Your task to perform on an android device: What's the weather going to be tomorrow? Image 0: 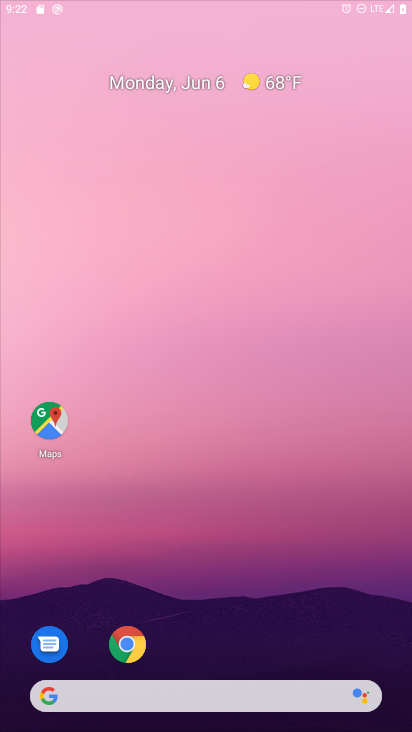
Step 0: press home button
Your task to perform on an android device: What's the weather going to be tomorrow? Image 1: 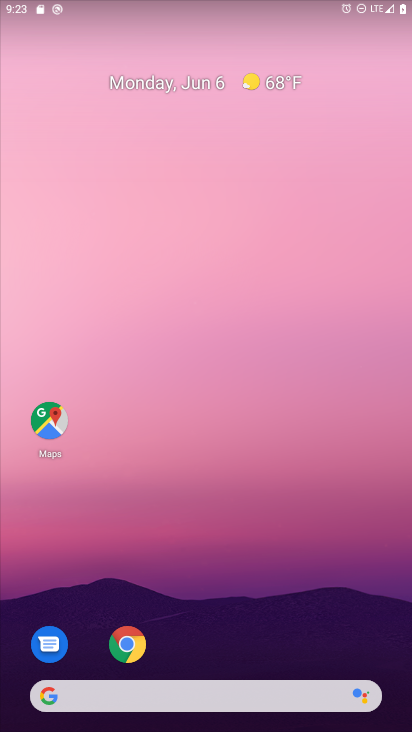
Step 1: click (234, 704)
Your task to perform on an android device: What's the weather going to be tomorrow? Image 2: 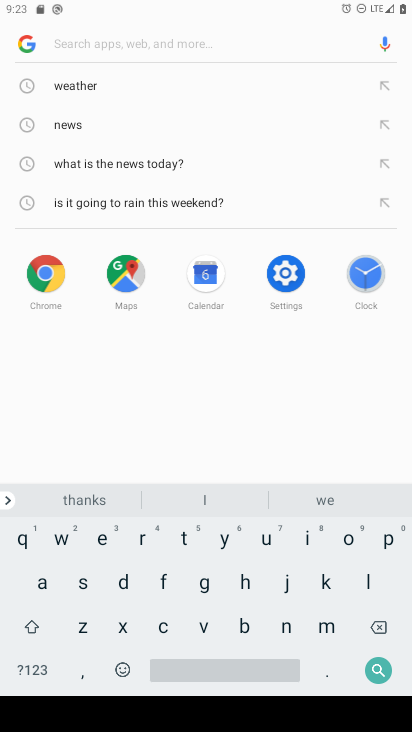
Step 2: click (87, 113)
Your task to perform on an android device: What's the weather going to be tomorrow? Image 3: 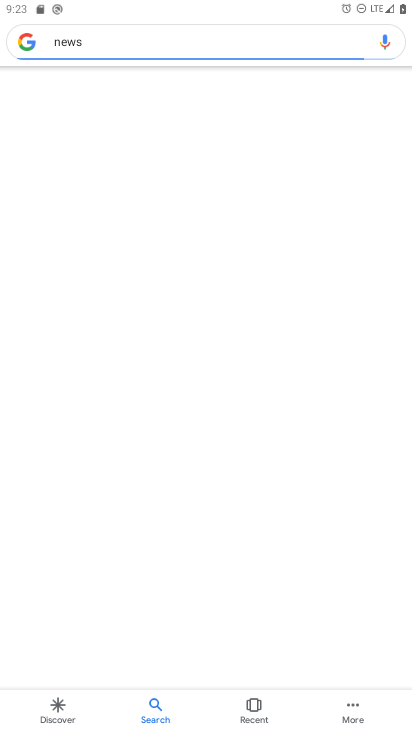
Step 3: click (264, 35)
Your task to perform on an android device: What's the weather going to be tomorrow? Image 4: 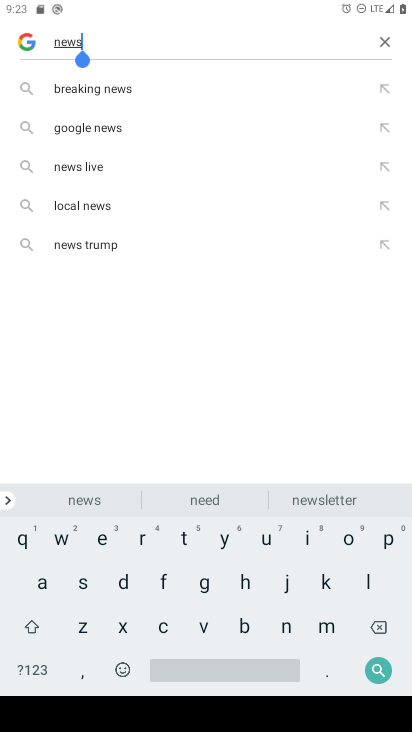
Step 4: click (379, 37)
Your task to perform on an android device: What's the weather going to be tomorrow? Image 5: 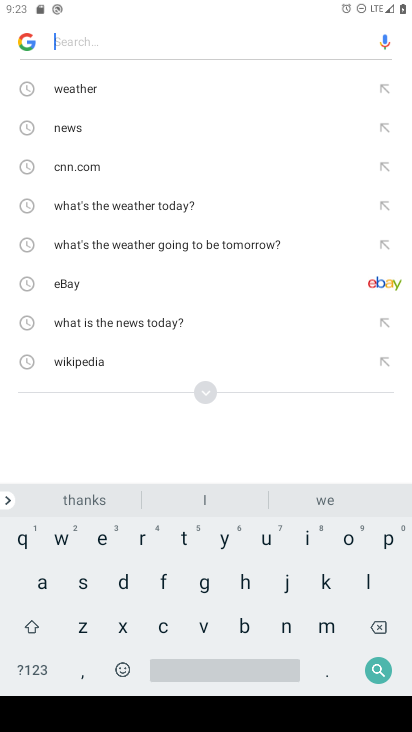
Step 5: click (73, 86)
Your task to perform on an android device: What's the weather going to be tomorrow? Image 6: 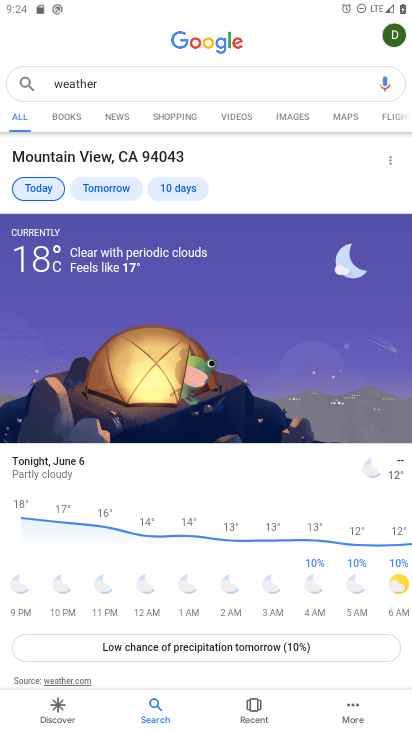
Step 6: task complete